Your task to perform on an android device: Show me popular videos on Youtube Image 0: 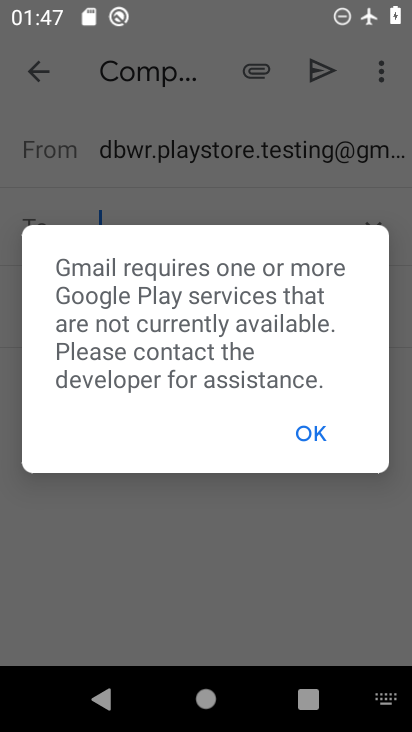
Step 0: press home button
Your task to perform on an android device: Show me popular videos on Youtube Image 1: 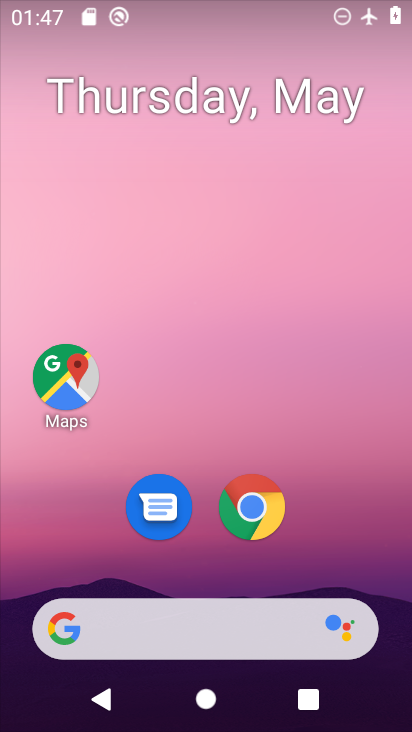
Step 1: drag from (391, 559) to (221, 0)
Your task to perform on an android device: Show me popular videos on Youtube Image 2: 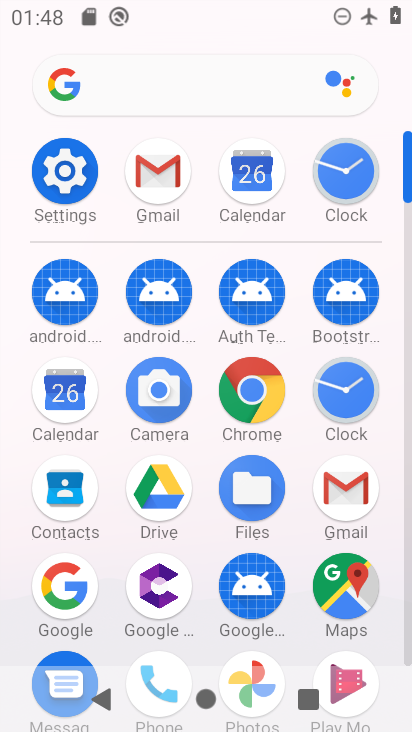
Step 2: click (407, 647)
Your task to perform on an android device: Show me popular videos on Youtube Image 3: 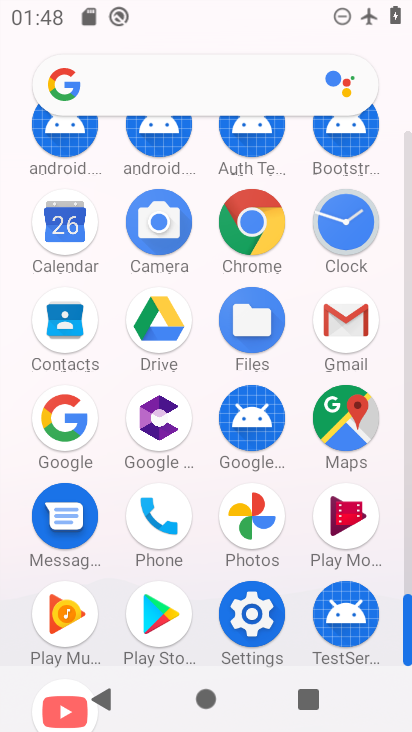
Step 3: click (407, 647)
Your task to perform on an android device: Show me popular videos on Youtube Image 4: 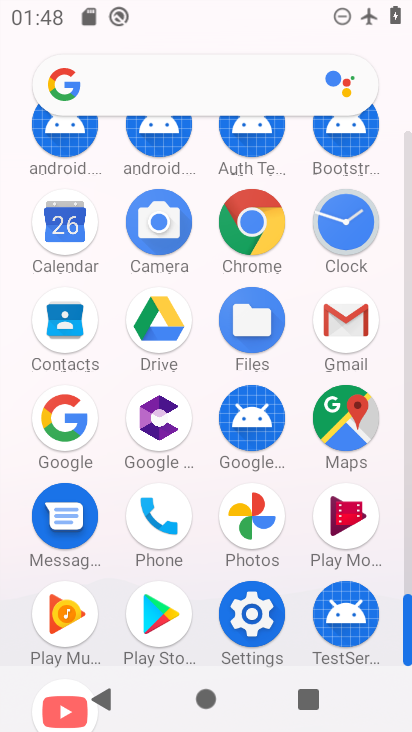
Step 4: drag from (407, 647) to (400, 725)
Your task to perform on an android device: Show me popular videos on Youtube Image 5: 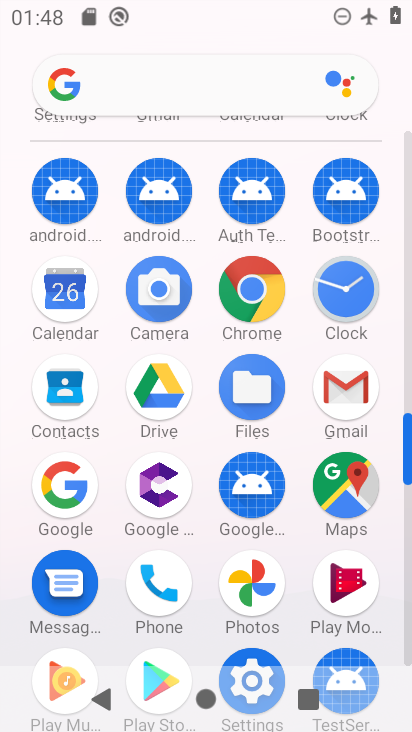
Step 5: click (408, 602)
Your task to perform on an android device: Show me popular videos on Youtube Image 6: 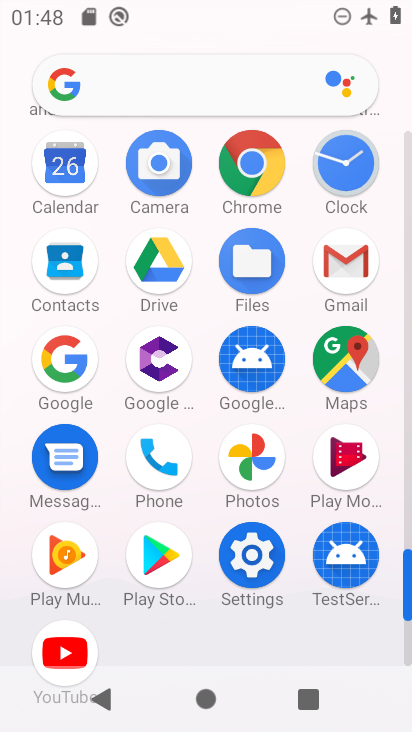
Step 6: click (54, 642)
Your task to perform on an android device: Show me popular videos on Youtube Image 7: 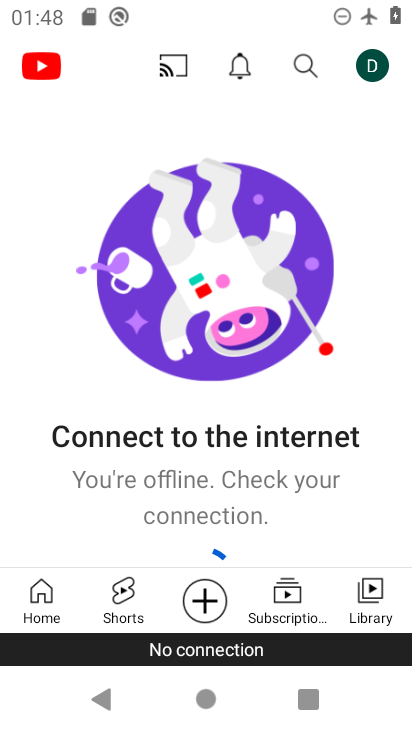
Step 7: task complete